Your task to perform on an android device: Go to Maps Image 0: 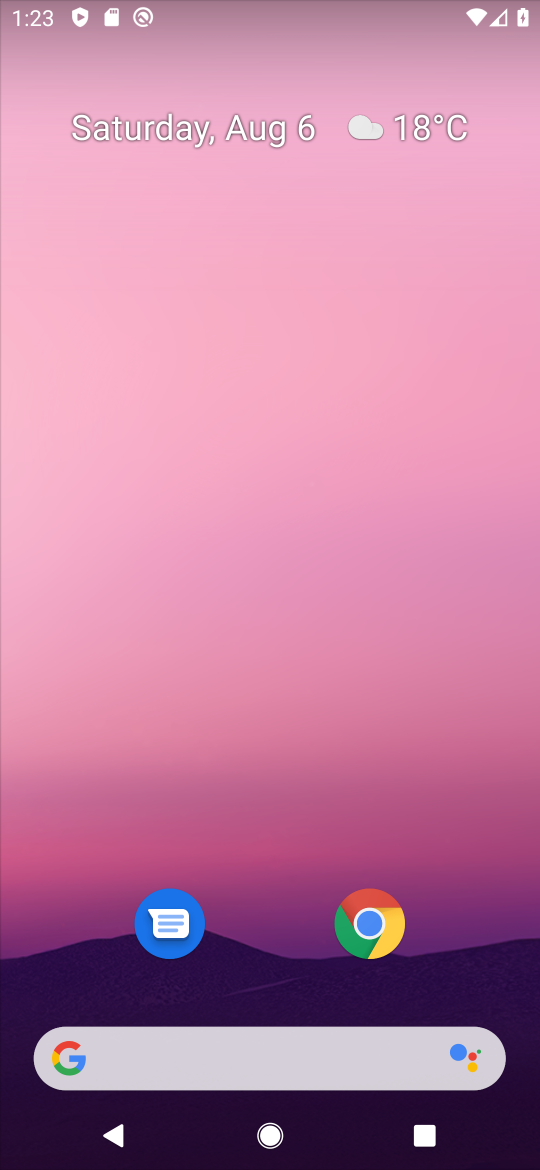
Step 0: drag from (287, 980) to (335, 338)
Your task to perform on an android device: Go to Maps Image 1: 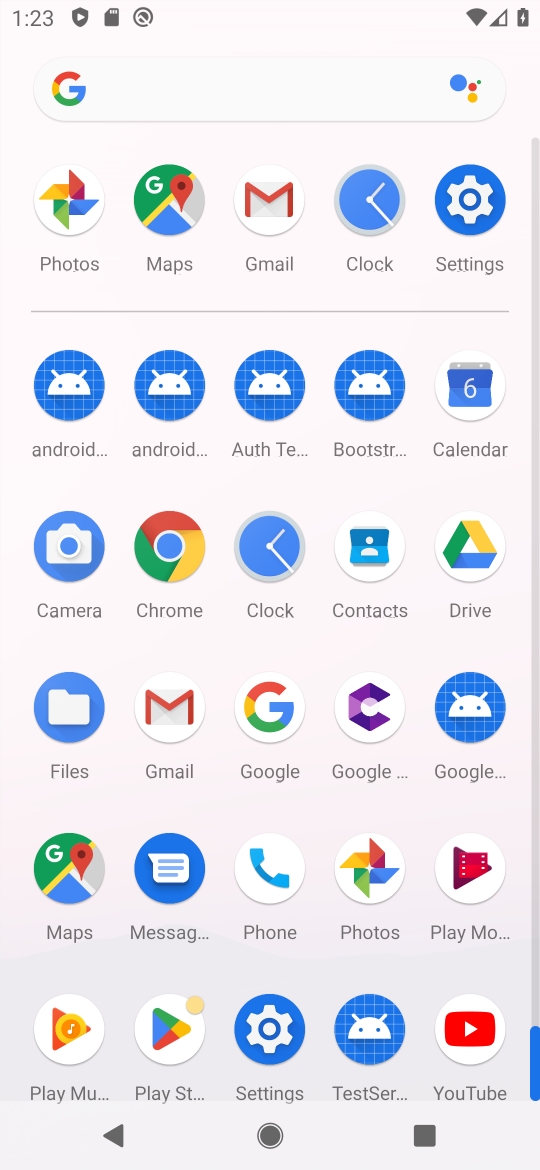
Step 1: click (163, 212)
Your task to perform on an android device: Go to Maps Image 2: 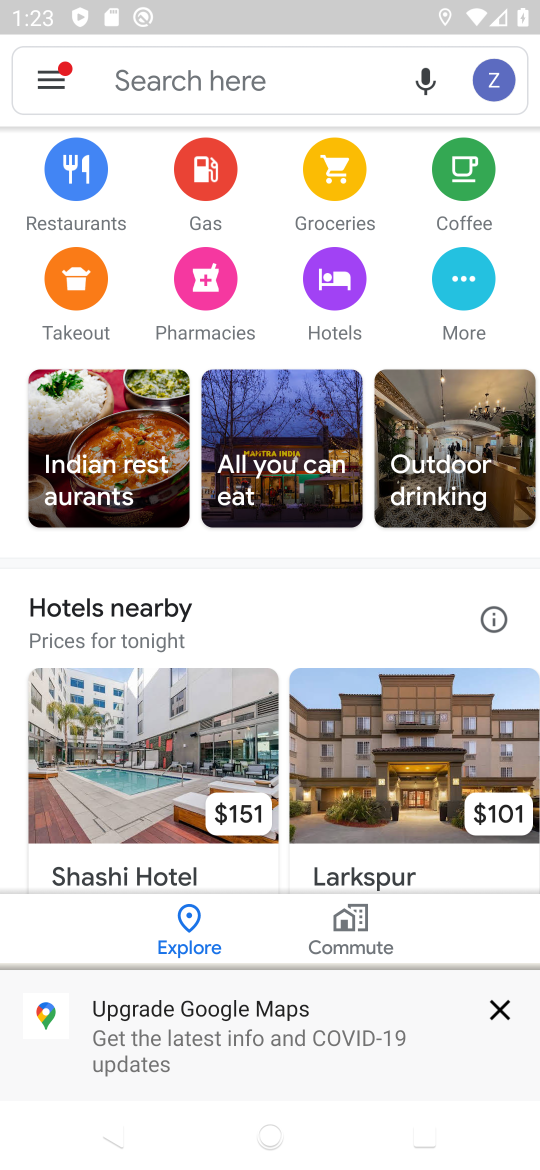
Step 2: task complete